Your task to perform on an android device: Go to privacy settings Image 0: 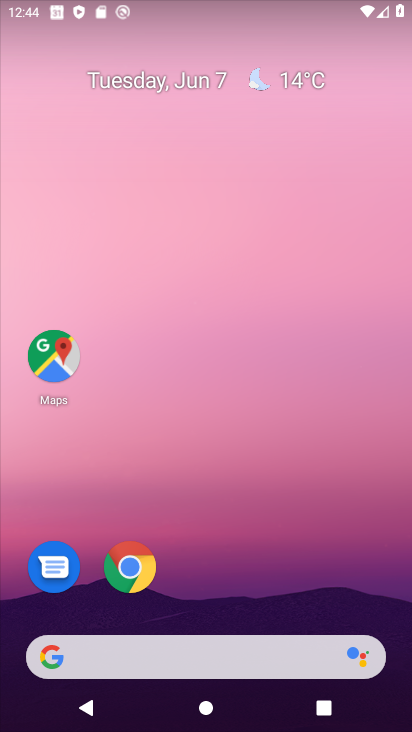
Step 0: drag from (256, 565) to (345, 25)
Your task to perform on an android device: Go to privacy settings Image 1: 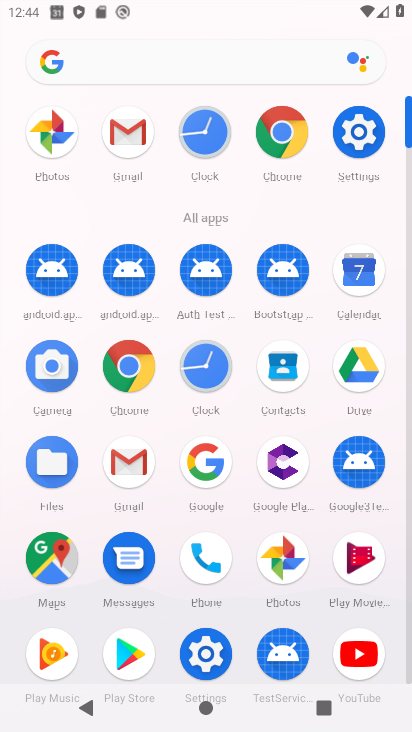
Step 1: click (204, 660)
Your task to perform on an android device: Go to privacy settings Image 2: 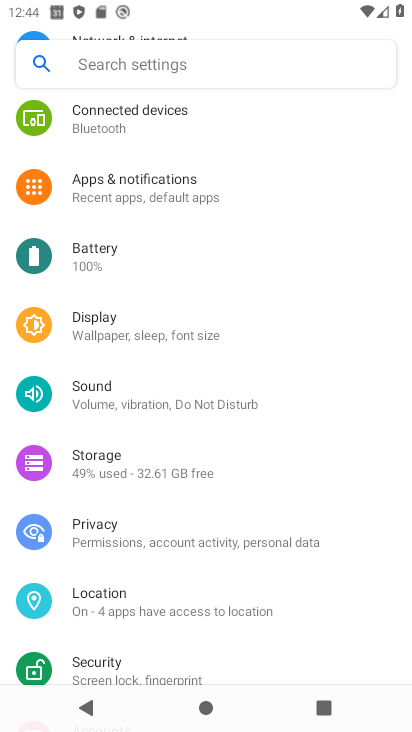
Step 2: click (164, 537)
Your task to perform on an android device: Go to privacy settings Image 3: 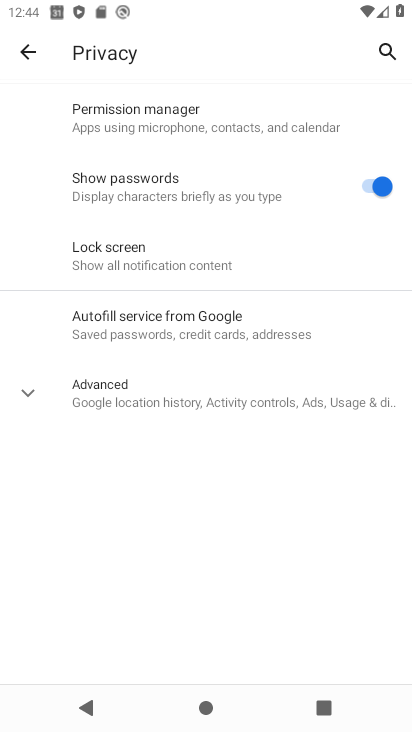
Step 3: task complete